Your task to perform on an android device: Go to Reddit.com Image 0: 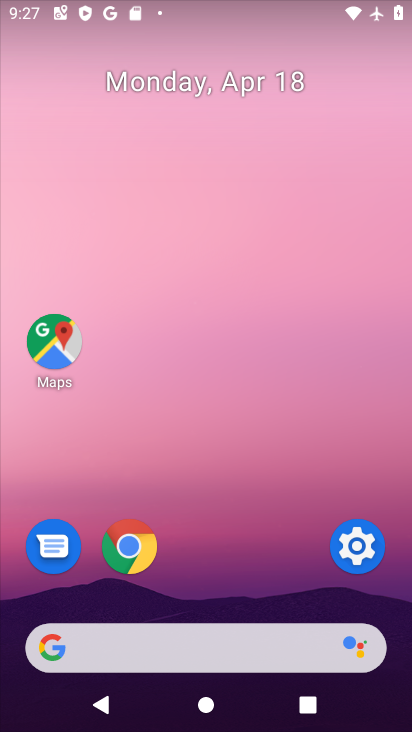
Step 0: click (132, 563)
Your task to perform on an android device: Go to Reddit.com Image 1: 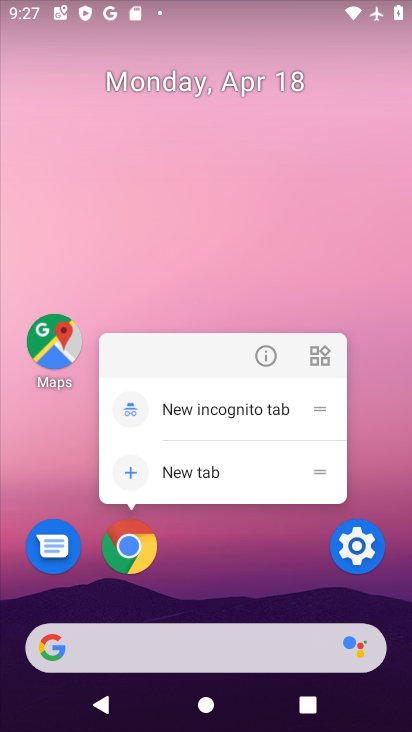
Step 1: click (134, 565)
Your task to perform on an android device: Go to Reddit.com Image 2: 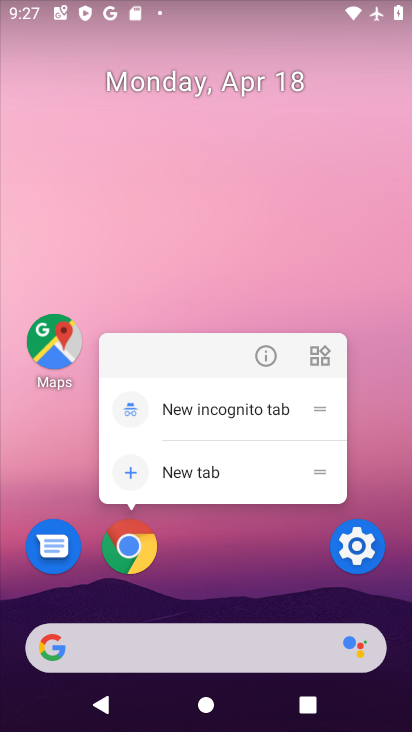
Step 2: click (135, 568)
Your task to perform on an android device: Go to Reddit.com Image 3: 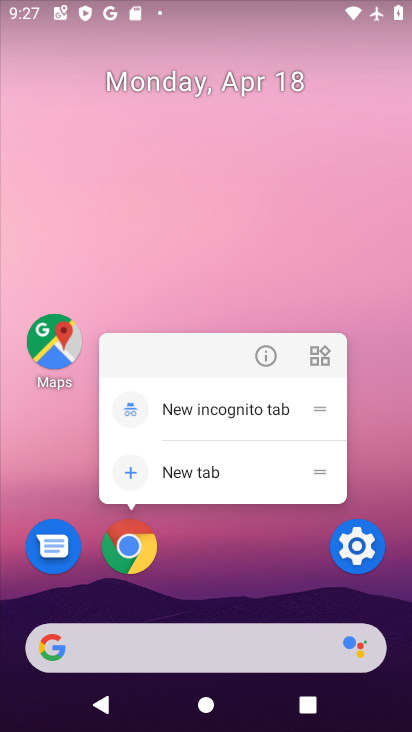
Step 3: click (135, 568)
Your task to perform on an android device: Go to Reddit.com Image 4: 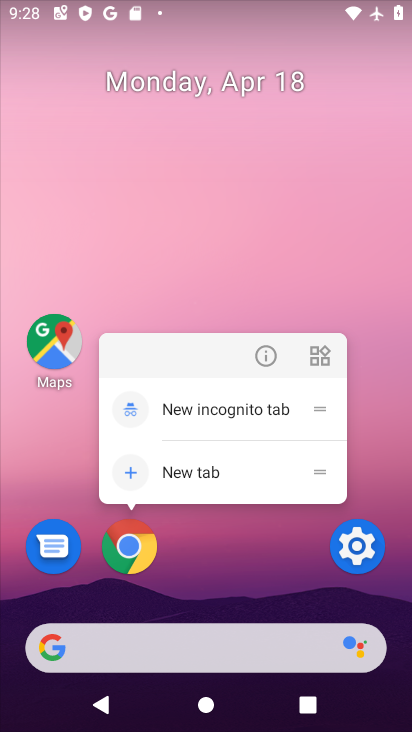
Step 4: click (140, 545)
Your task to perform on an android device: Go to Reddit.com Image 5: 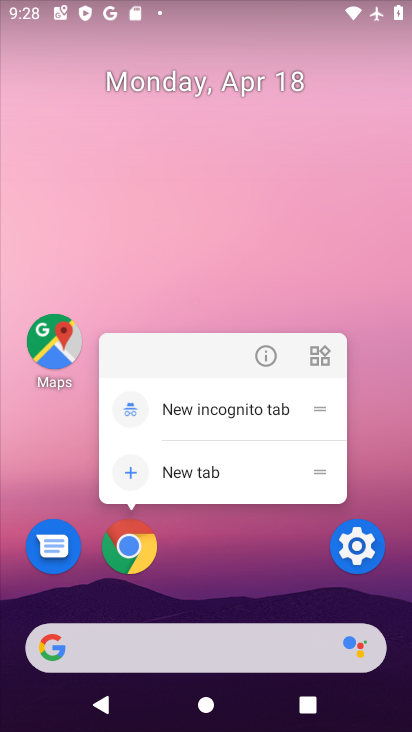
Step 5: click (142, 563)
Your task to perform on an android device: Go to Reddit.com Image 6: 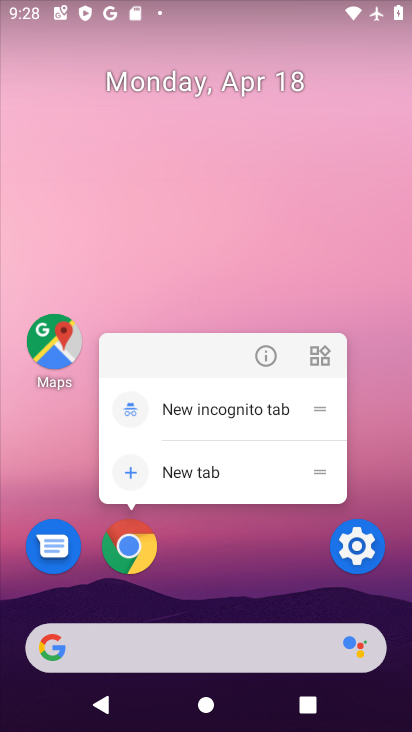
Step 6: click (143, 545)
Your task to perform on an android device: Go to Reddit.com Image 7: 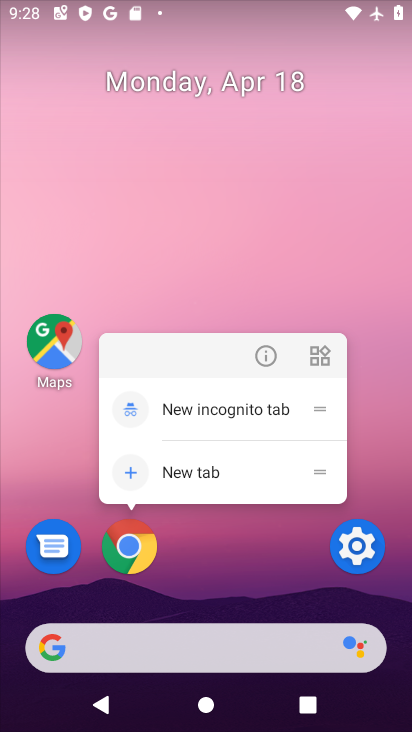
Step 7: click (143, 545)
Your task to perform on an android device: Go to Reddit.com Image 8: 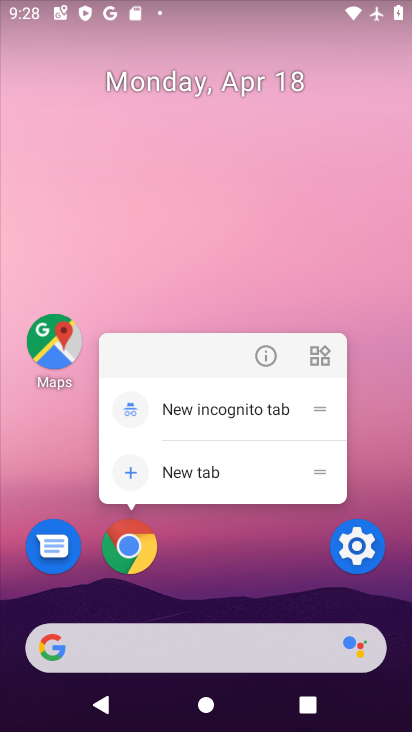
Step 8: click (142, 553)
Your task to perform on an android device: Go to Reddit.com Image 9: 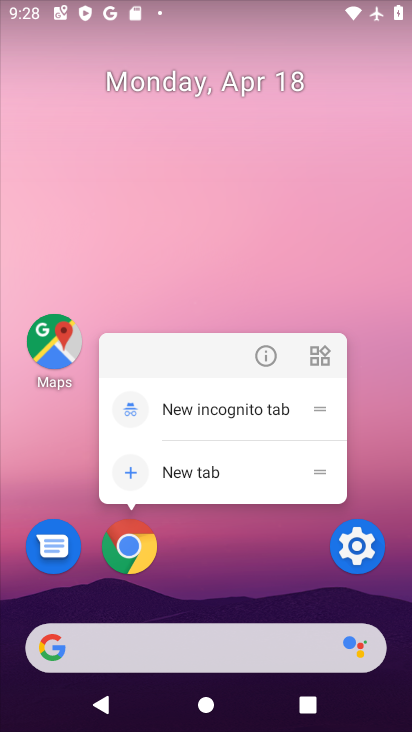
Step 9: click (142, 553)
Your task to perform on an android device: Go to Reddit.com Image 10: 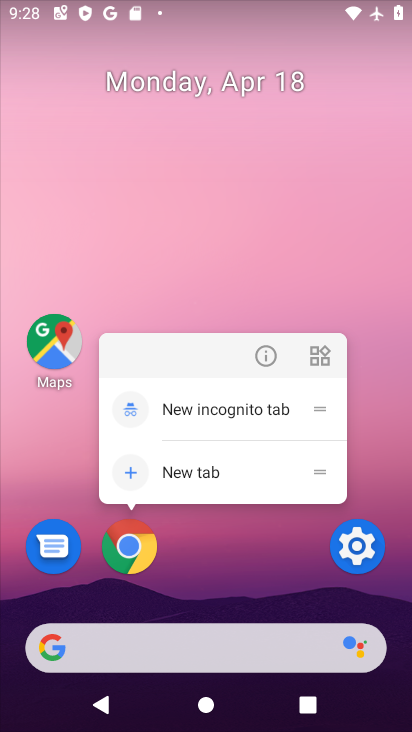
Step 10: click (142, 553)
Your task to perform on an android device: Go to Reddit.com Image 11: 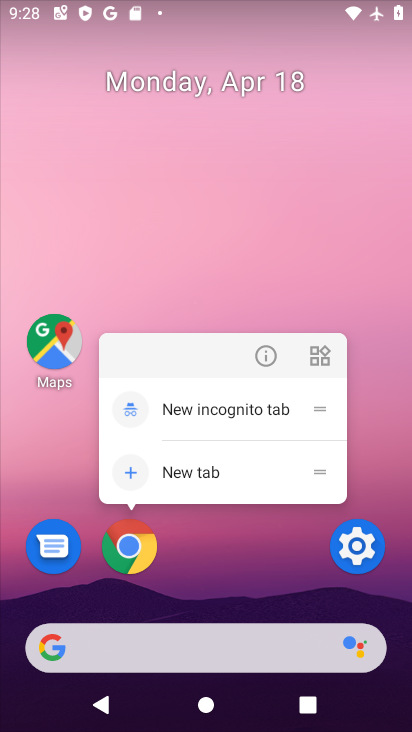
Step 11: click (142, 553)
Your task to perform on an android device: Go to Reddit.com Image 12: 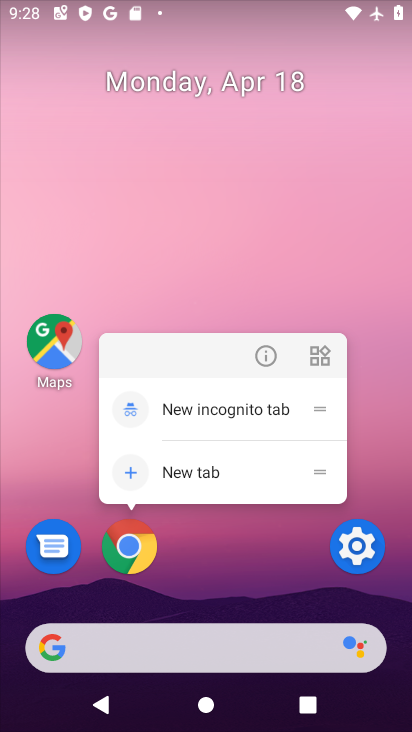
Step 12: click (242, 584)
Your task to perform on an android device: Go to Reddit.com Image 13: 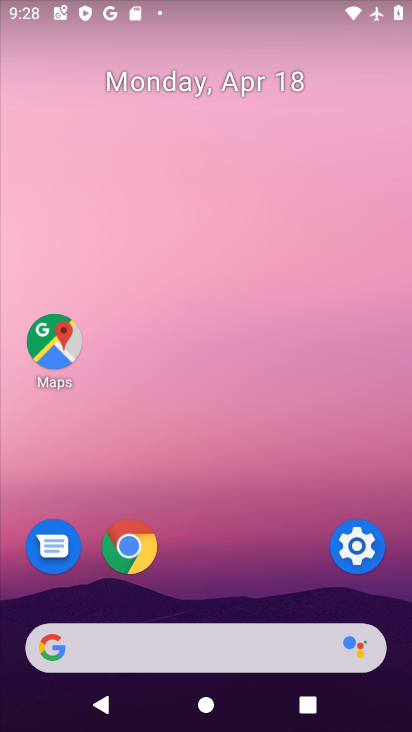
Step 13: click (123, 565)
Your task to perform on an android device: Go to Reddit.com Image 14: 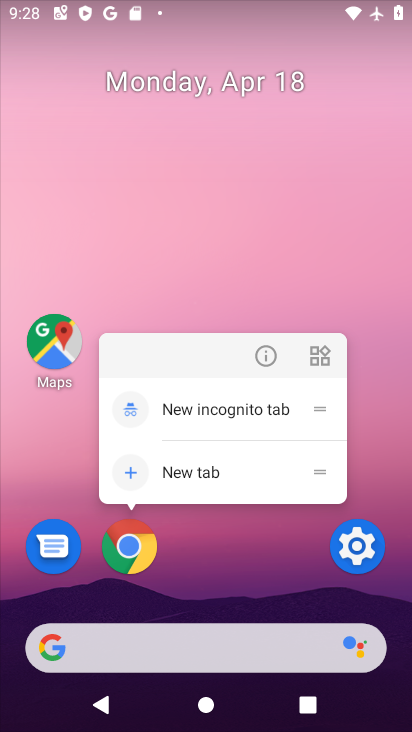
Step 14: click (123, 565)
Your task to perform on an android device: Go to Reddit.com Image 15: 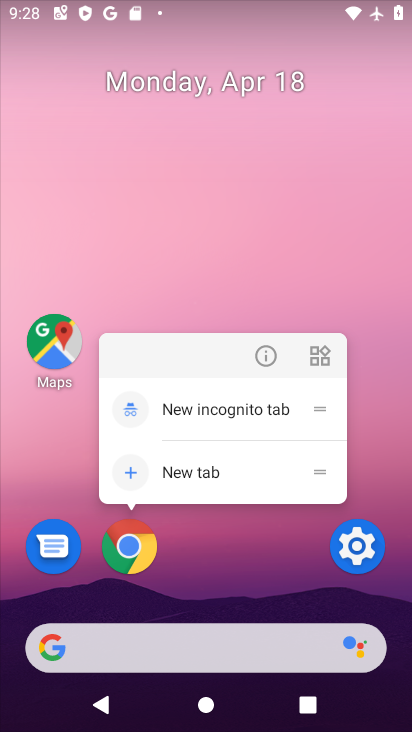
Step 15: click (146, 551)
Your task to perform on an android device: Go to Reddit.com Image 16: 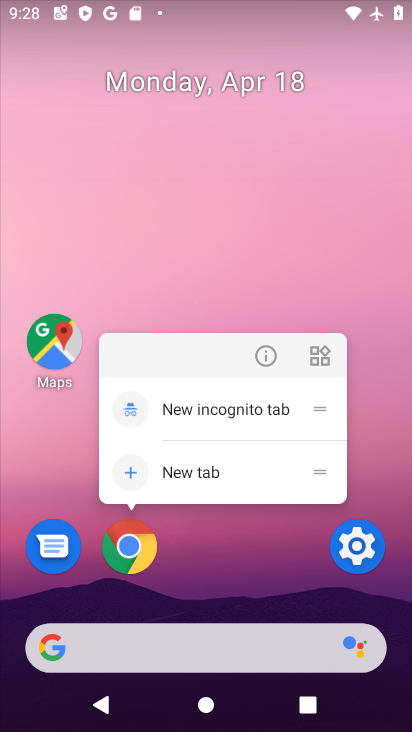
Step 16: click (150, 554)
Your task to perform on an android device: Go to Reddit.com Image 17: 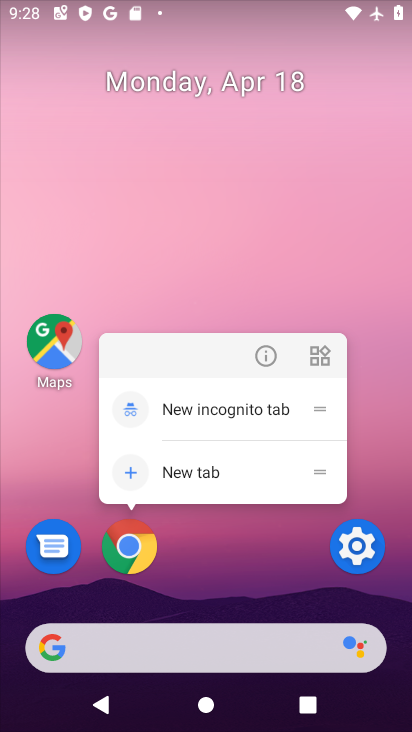
Step 17: click (137, 548)
Your task to perform on an android device: Go to Reddit.com Image 18: 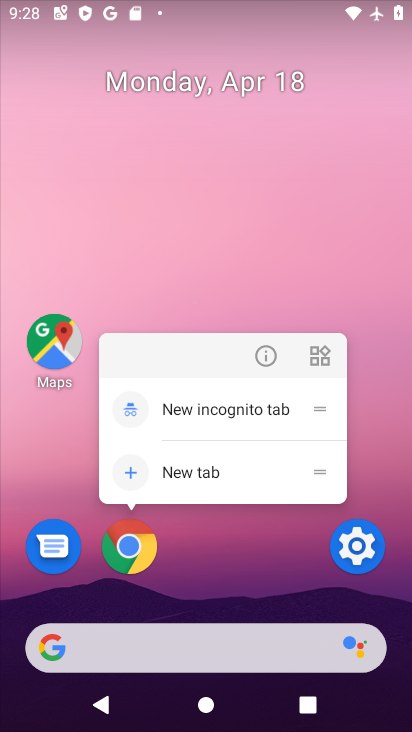
Step 18: click (136, 549)
Your task to perform on an android device: Go to Reddit.com Image 19: 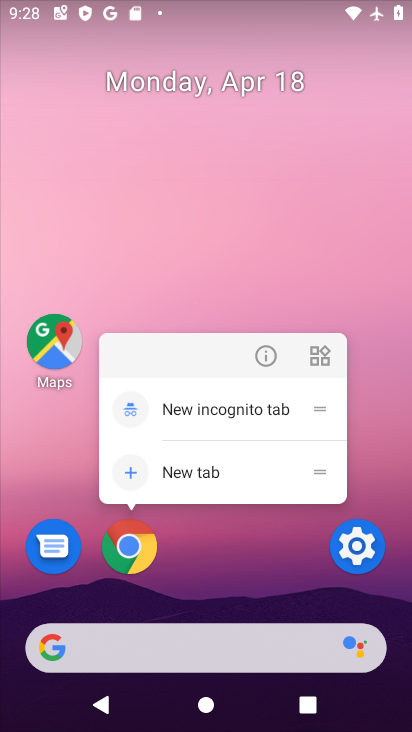
Step 19: click (136, 550)
Your task to perform on an android device: Go to Reddit.com Image 20: 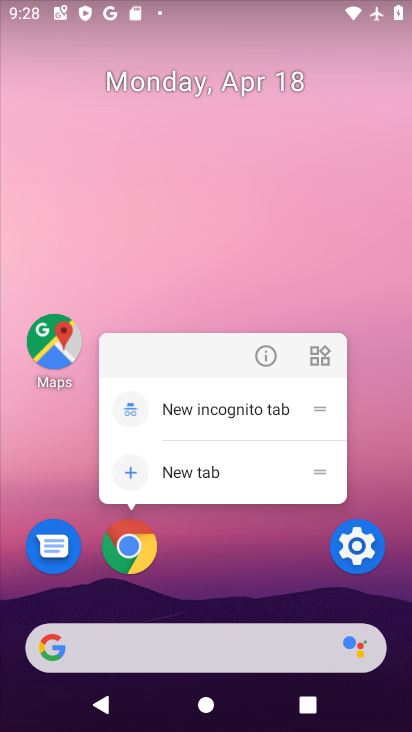
Step 20: click (136, 550)
Your task to perform on an android device: Go to Reddit.com Image 21: 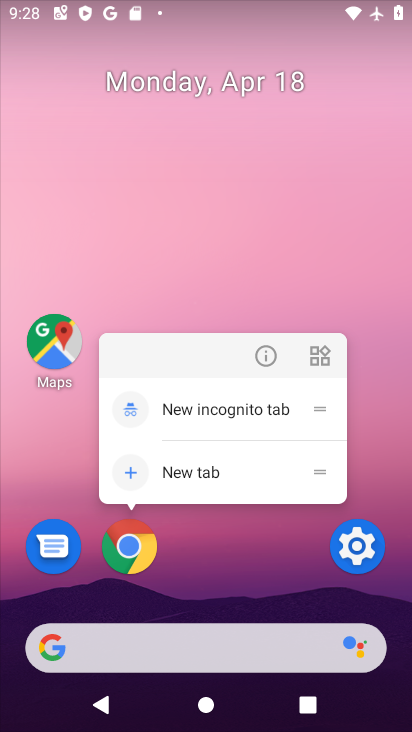
Step 21: click (136, 550)
Your task to perform on an android device: Go to Reddit.com Image 22: 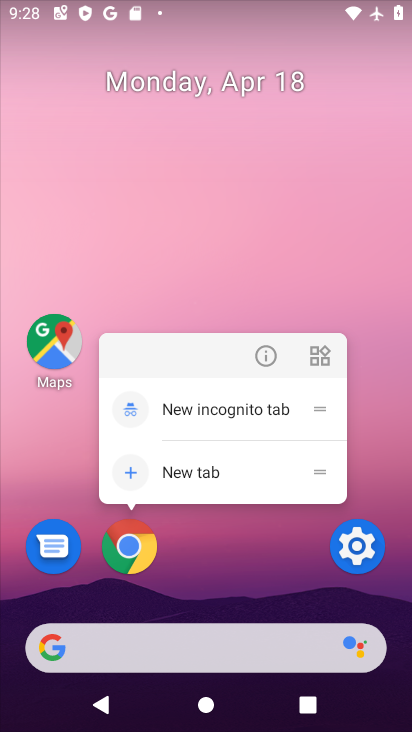
Step 22: click (135, 551)
Your task to perform on an android device: Go to Reddit.com Image 23: 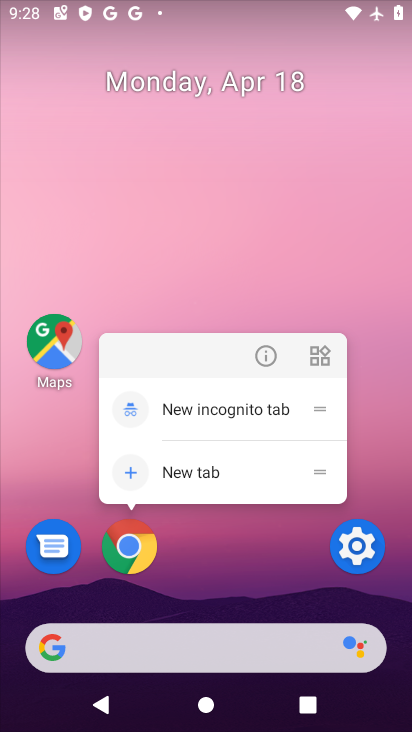
Step 23: click (135, 551)
Your task to perform on an android device: Go to Reddit.com Image 24: 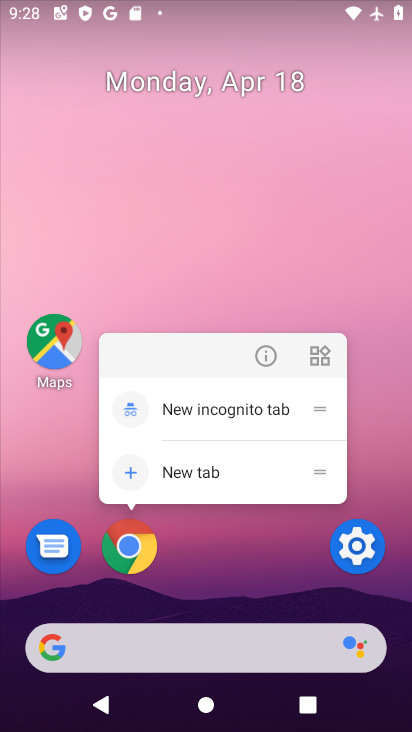
Step 24: click (134, 551)
Your task to perform on an android device: Go to Reddit.com Image 25: 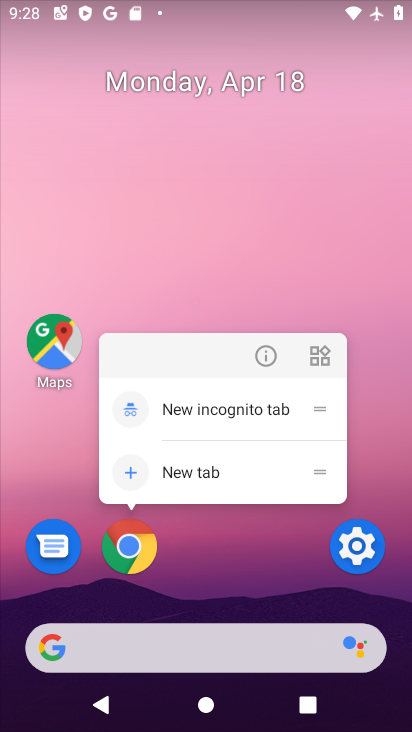
Step 25: click (138, 551)
Your task to perform on an android device: Go to Reddit.com Image 26: 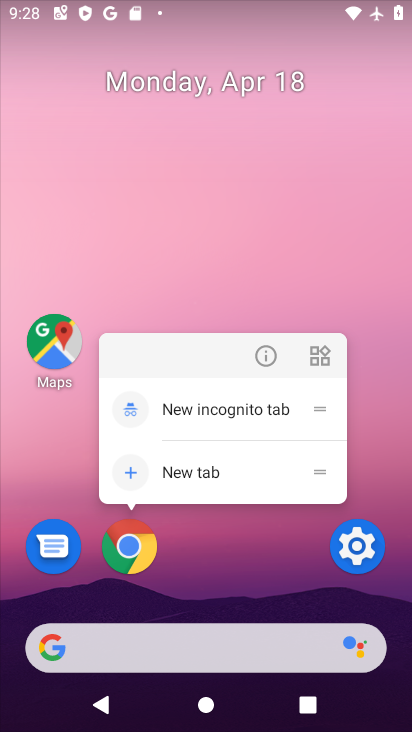
Step 26: click (195, 579)
Your task to perform on an android device: Go to Reddit.com Image 27: 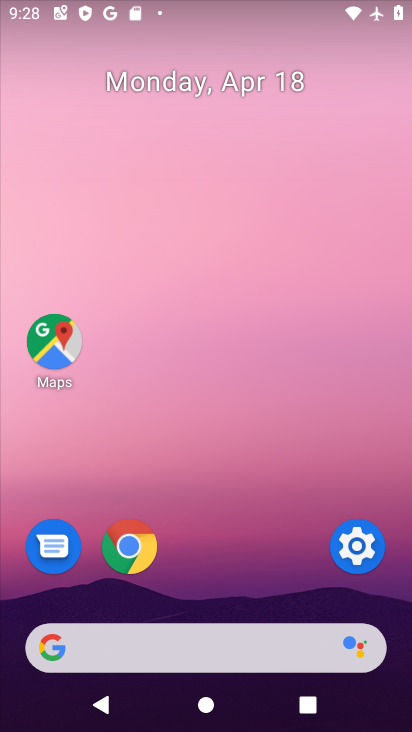
Step 27: click (136, 555)
Your task to perform on an android device: Go to Reddit.com Image 28: 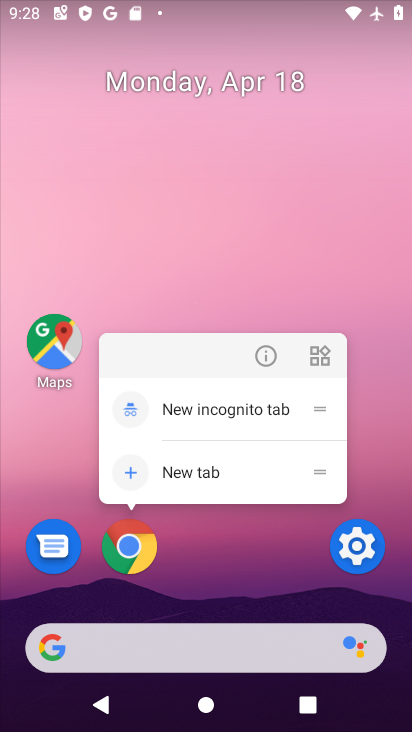
Step 28: click (237, 571)
Your task to perform on an android device: Go to Reddit.com Image 29: 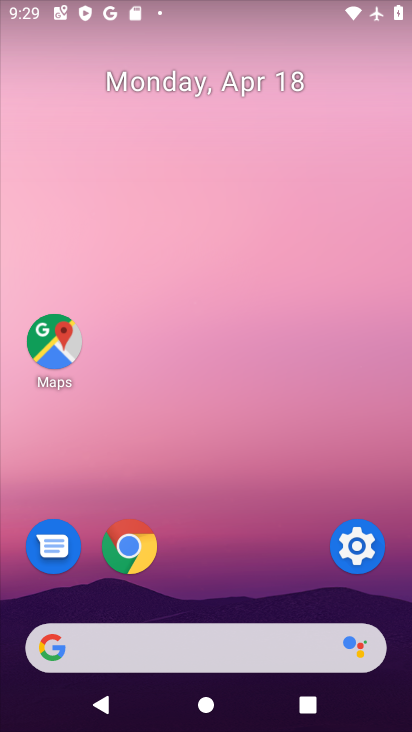
Step 29: click (124, 559)
Your task to perform on an android device: Go to Reddit.com Image 30: 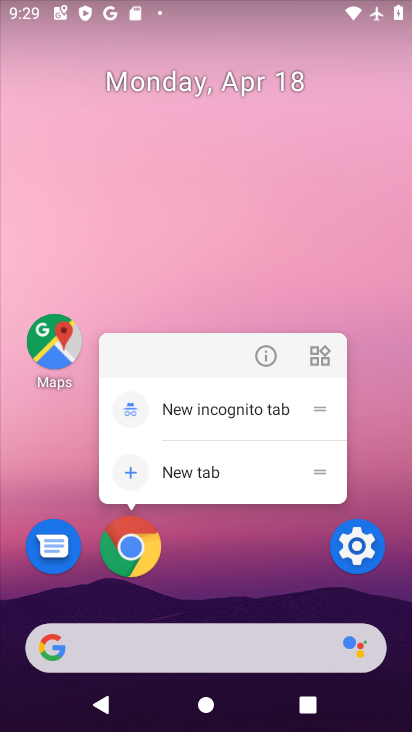
Step 30: click (124, 559)
Your task to perform on an android device: Go to Reddit.com Image 31: 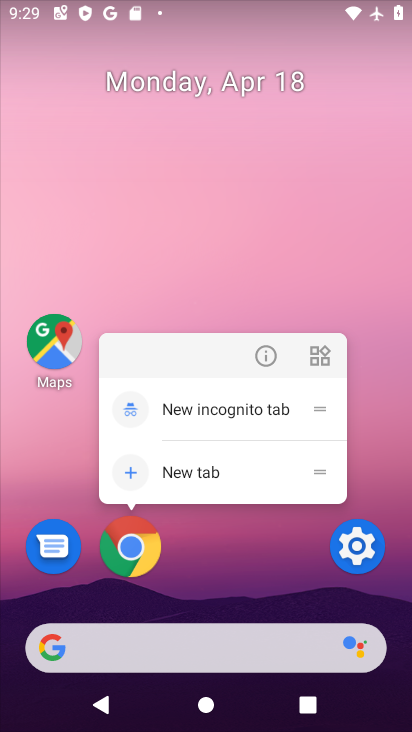
Step 31: click (124, 559)
Your task to perform on an android device: Go to Reddit.com Image 32: 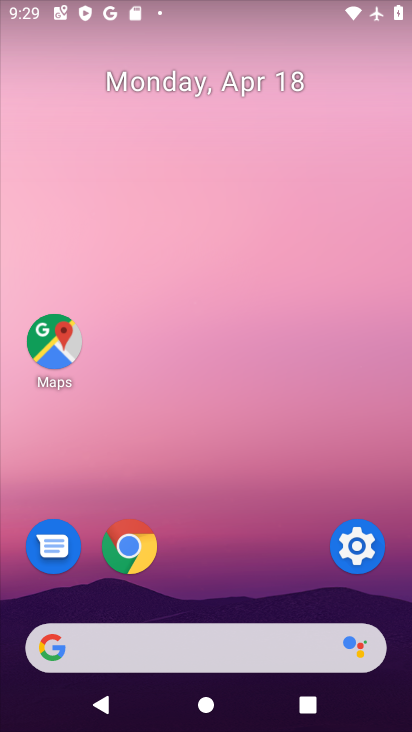
Step 32: click (148, 541)
Your task to perform on an android device: Go to Reddit.com Image 33: 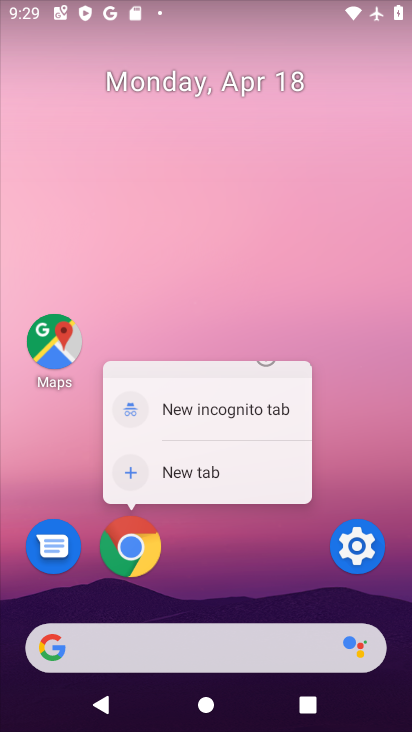
Step 33: click (148, 541)
Your task to perform on an android device: Go to Reddit.com Image 34: 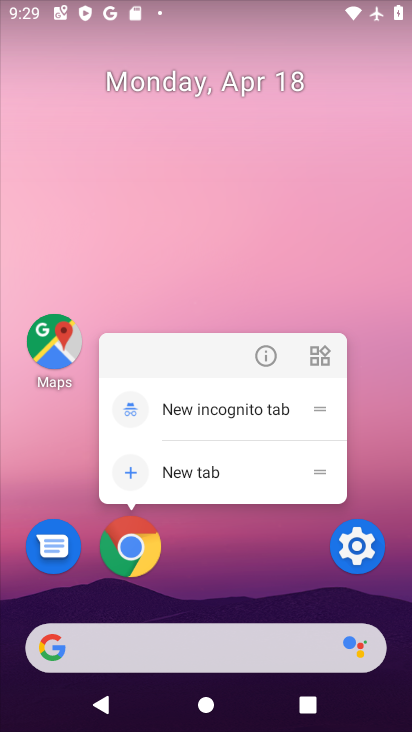
Step 34: click (148, 541)
Your task to perform on an android device: Go to Reddit.com Image 35: 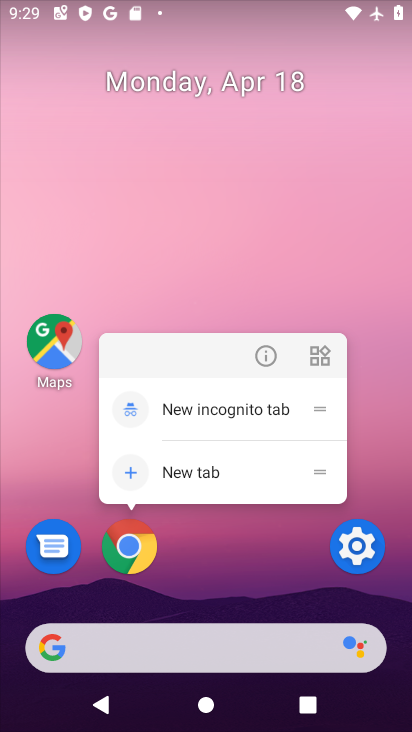
Step 35: click (125, 556)
Your task to perform on an android device: Go to Reddit.com Image 36: 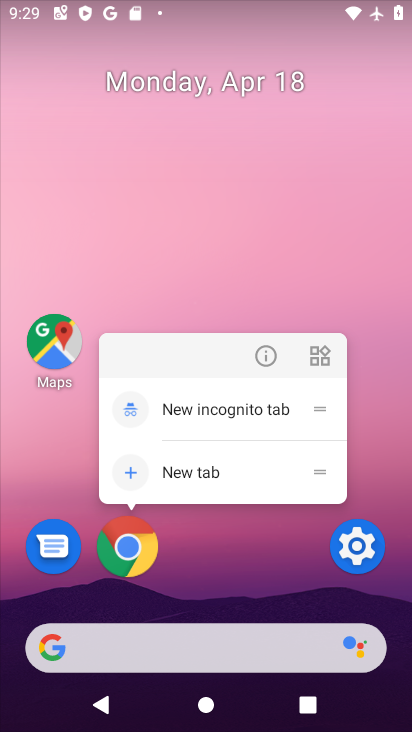
Step 36: click (185, 569)
Your task to perform on an android device: Go to Reddit.com Image 37: 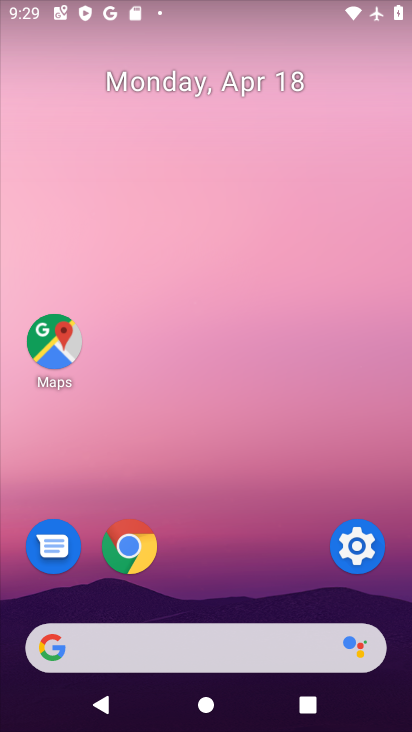
Step 37: click (133, 557)
Your task to perform on an android device: Go to Reddit.com Image 38: 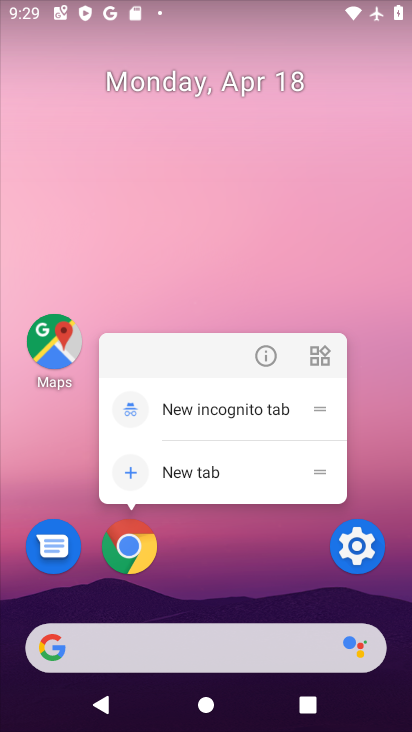
Step 38: click (137, 557)
Your task to perform on an android device: Go to Reddit.com Image 39: 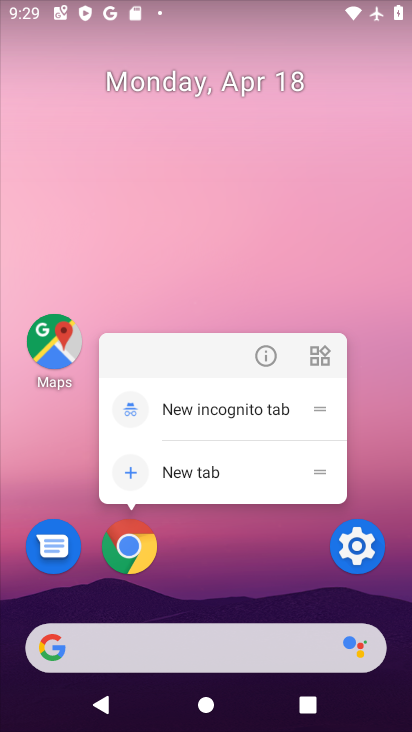
Step 39: click (145, 552)
Your task to perform on an android device: Go to Reddit.com Image 40: 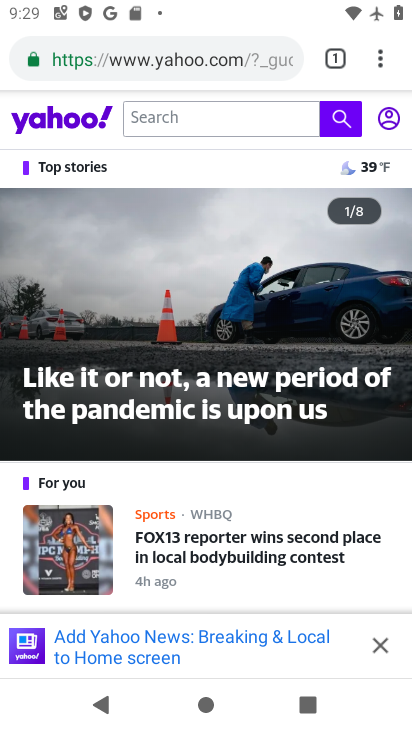
Step 40: click (224, 60)
Your task to perform on an android device: Go to Reddit.com Image 41: 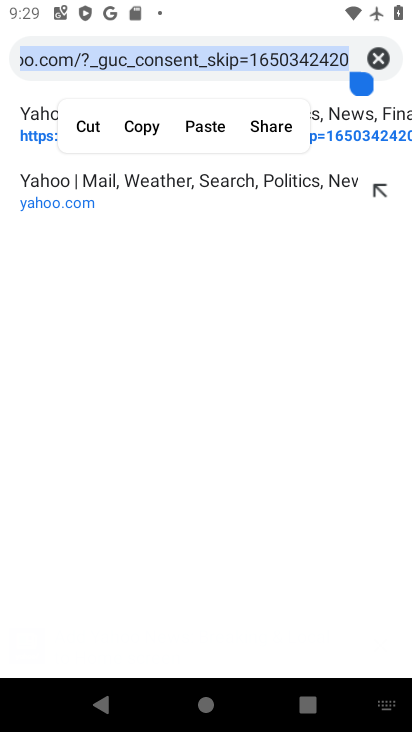
Step 41: type "reddit"
Your task to perform on an android device: Go to Reddit.com Image 42: 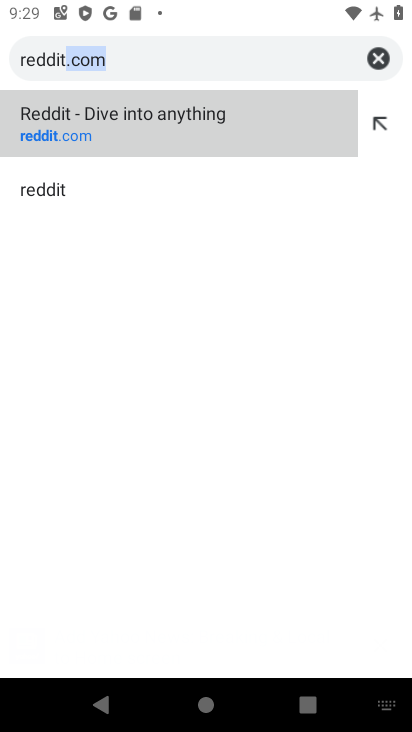
Step 42: type ".com"
Your task to perform on an android device: Go to Reddit.com Image 43: 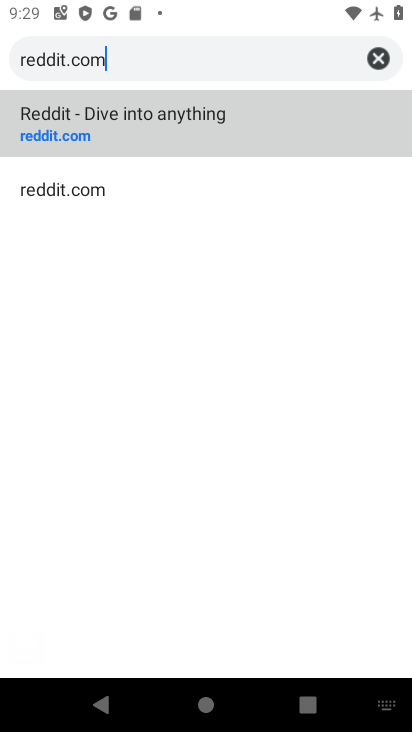
Step 43: click (43, 122)
Your task to perform on an android device: Go to Reddit.com Image 44: 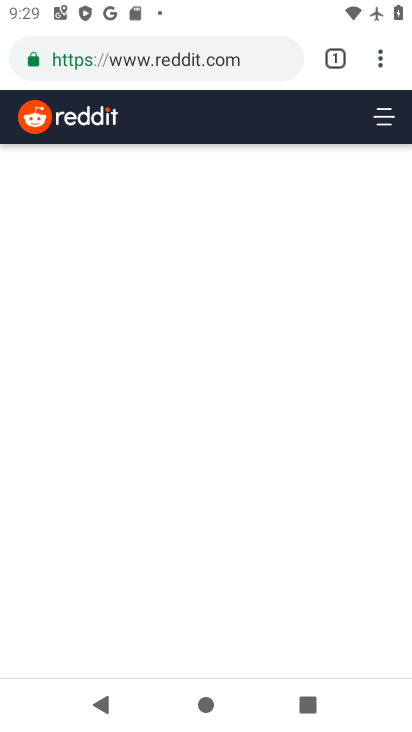
Step 44: task complete